Your task to perform on an android device: toggle sleep mode Image 0: 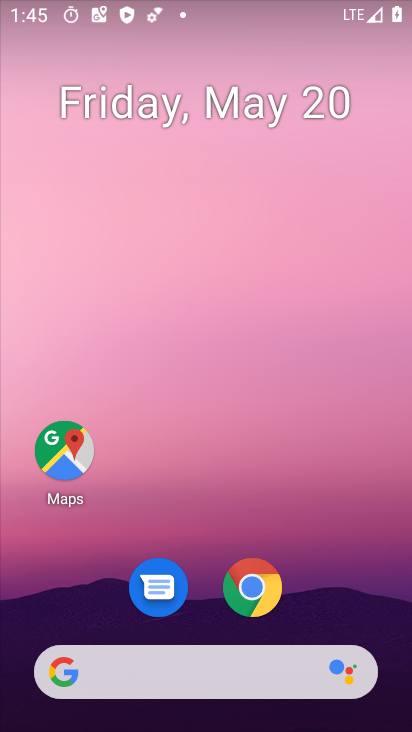
Step 0: drag from (368, 518) to (270, 76)
Your task to perform on an android device: toggle sleep mode Image 1: 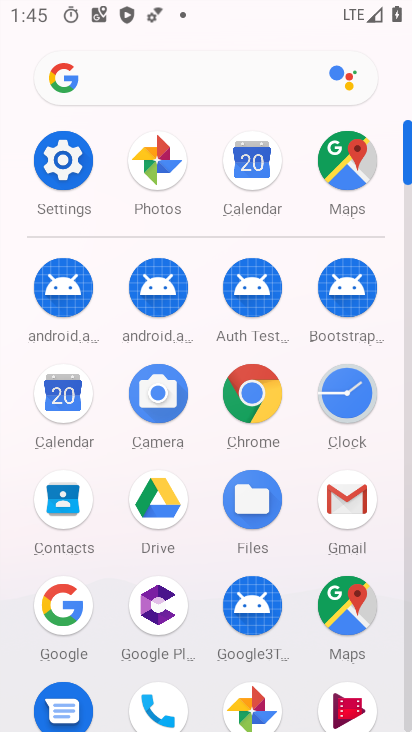
Step 1: click (85, 154)
Your task to perform on an android device: toggle sleep mode Image 2: 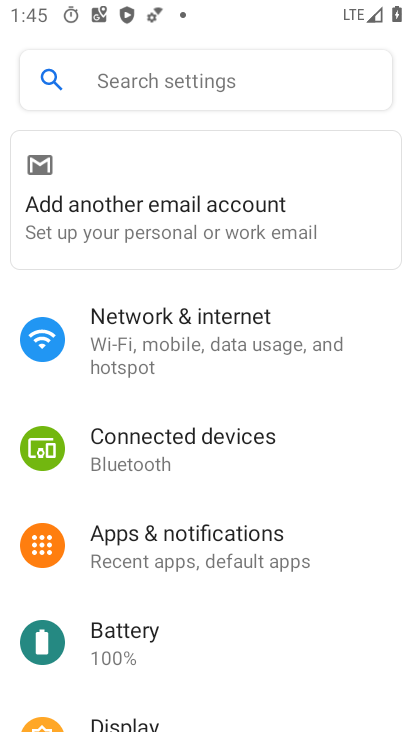
Step 2: click (131, 720)
Your task to perform on an android device: toggle sleep mode Image 3: 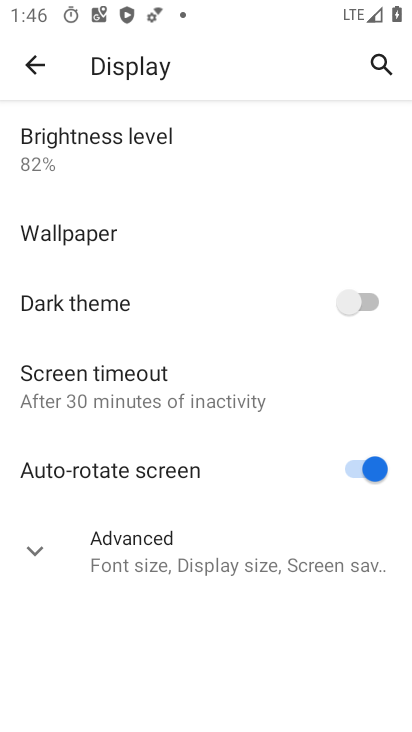
Step 3: click (191, 399)
Your task to perform on an android device: toggle sleep mode Image 4: 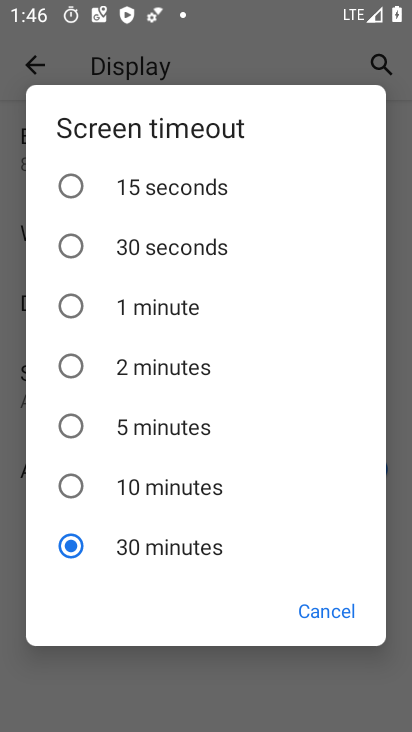
Step 4: click (168, 499)
Your task to perform on an android device: toggle sleep mode Image 5: 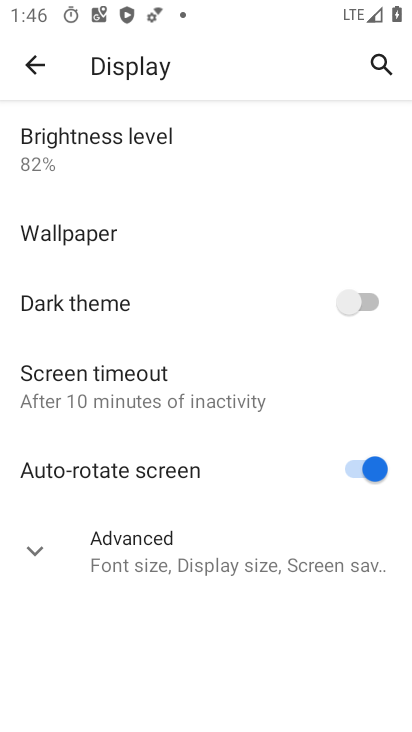
Step 5: task complete